Your task to perform on an android device: Open notification settings Image 0: 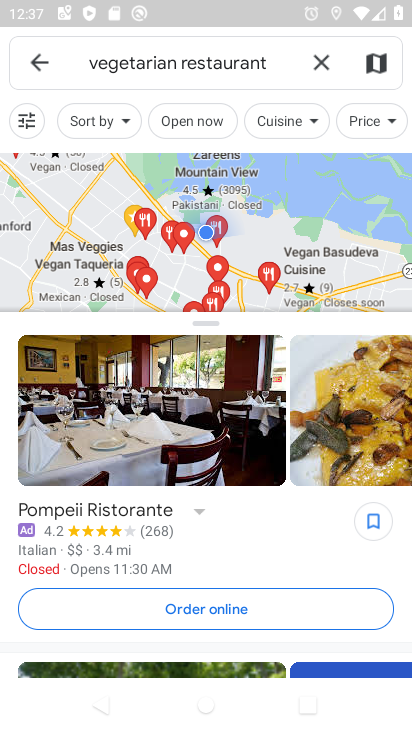
Step 0: press home button
Your task to perform on an android device: Open notification settings Image 1: 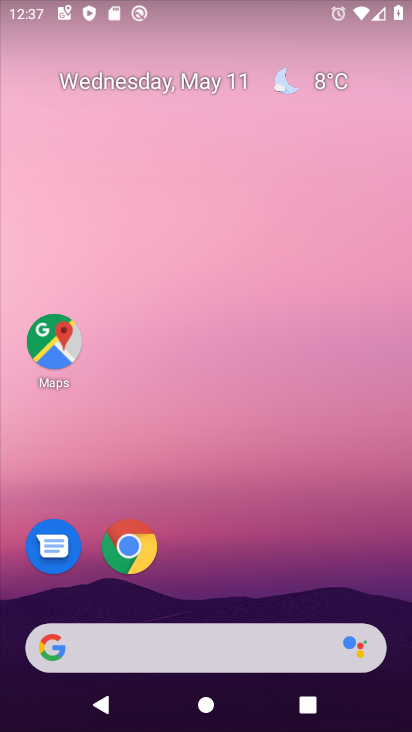
Step 1: drag from (208, 655) to (265, 142)
Your task to perform on an android device: Open notification settings Image 2: 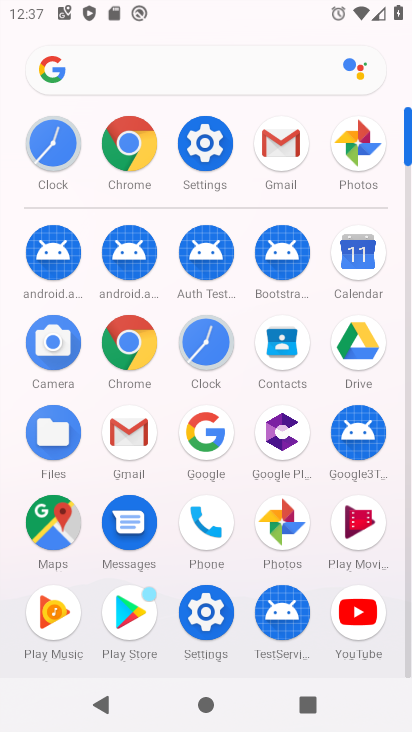
Step 2: click (201, 131)
Your task to perform on an android device: Open notification settings Image 3: 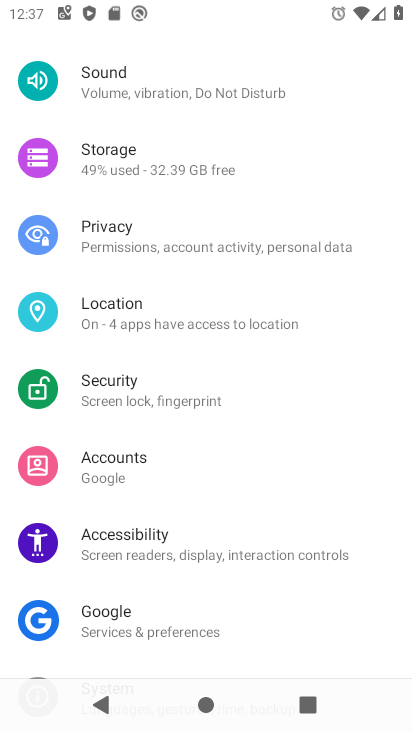
Step 3: drag from (281, 73) to (314, 585)
Your task to perform on an android device: Open notification settings Image 4: 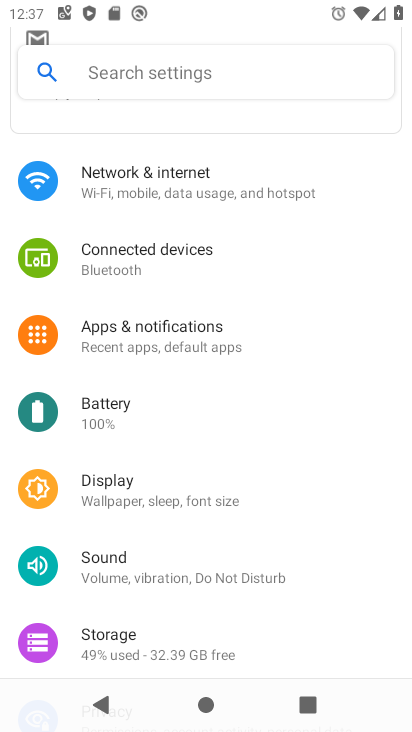
Step 4: click (191, 340)
Your task to perform on an android device: Open notification settings Image 5: 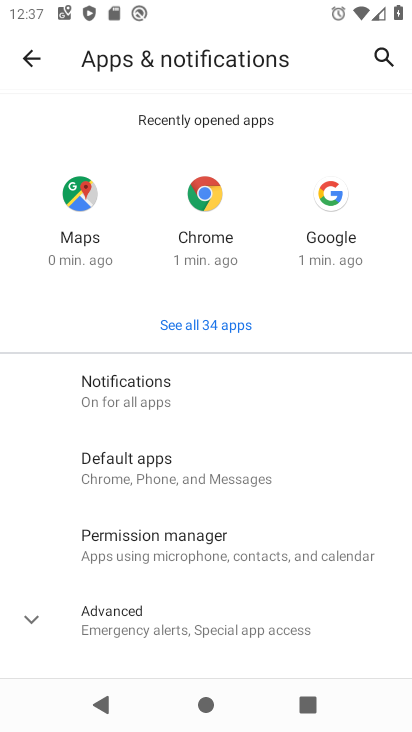
Step 5: click (162, 396)
Your task to perform on an android device: Open notification settings Image 6: 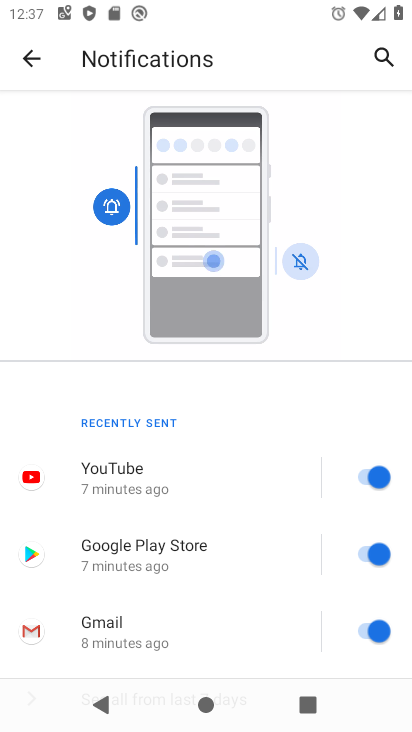
Step 6: task complete